Your task to perform on an android device: Is it going to rain today? Image 0: 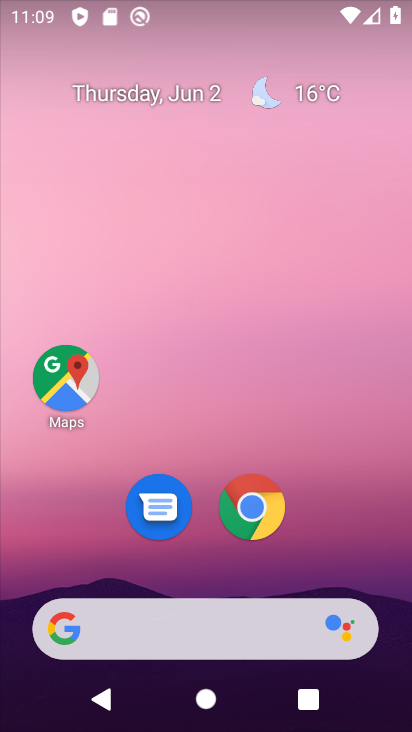
Step 0: drag from (335, 522) to (335, 147)
Your task to perform on an android device: Is it going to rain today? Image 1: 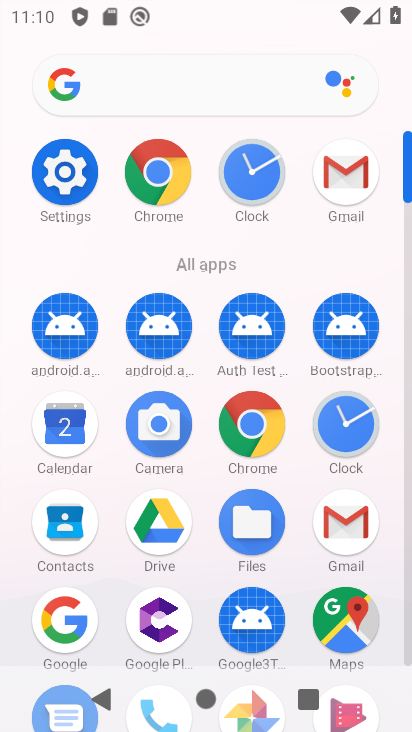
Step 1: click (170, 191)
Your task to perform on an android device: Is it going to rain today? Image 2: 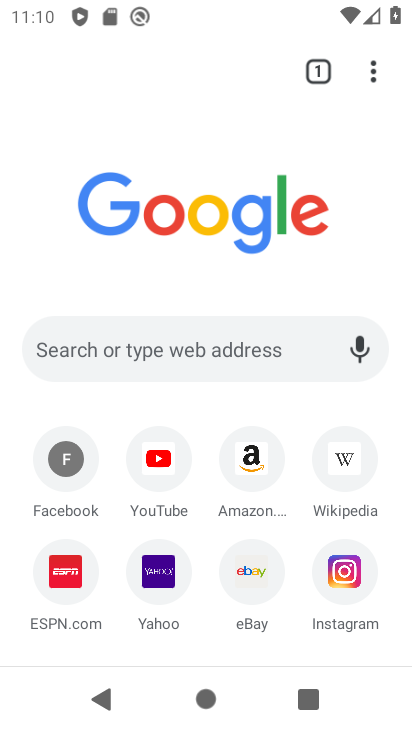
Step 2: click (160, 349)
Your task to perform on an android device: Is it going to rain today? Image 3: 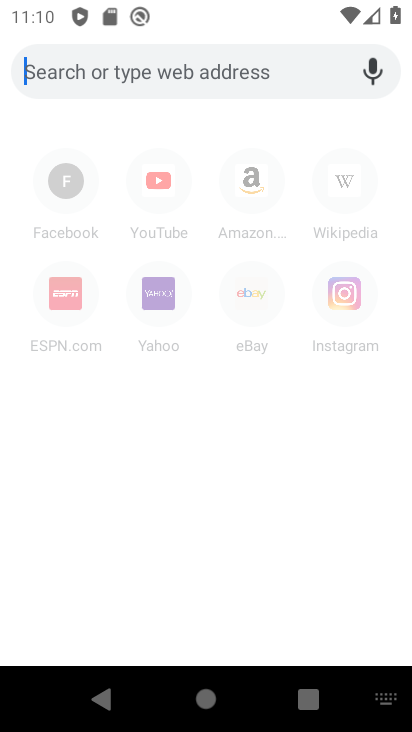
Step 3: type "is it going to rain today"
Your task to perform on an android device: Is it going to rain today? Image 4: 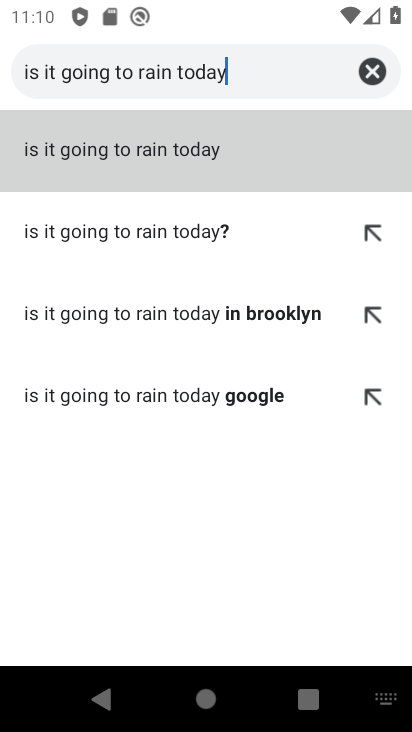
Step 4: click (212, 163)
Your task to perform on an android device: Is it going to rain today? Image 5: 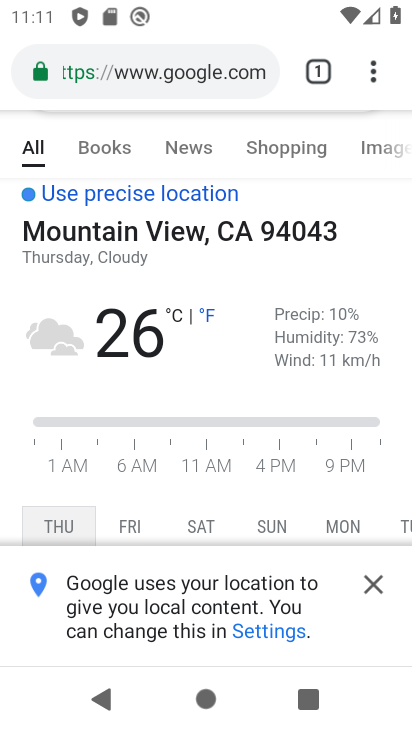
Step 5: task complete